Your task to perform on an android device: check data usage Image 0: 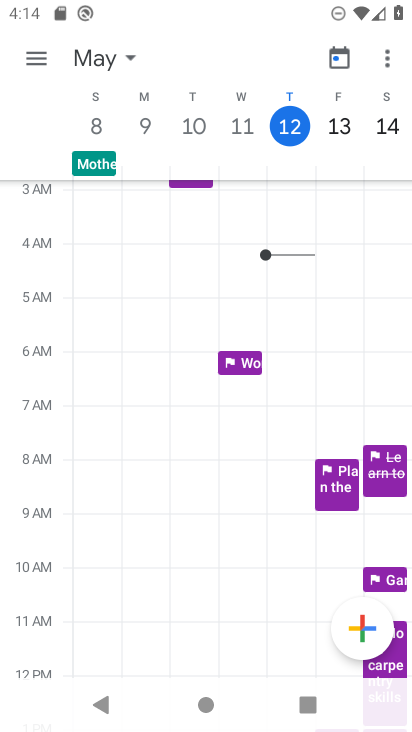
Step 0: press home button
Your task to perform on an android device: check data usage Image 1: 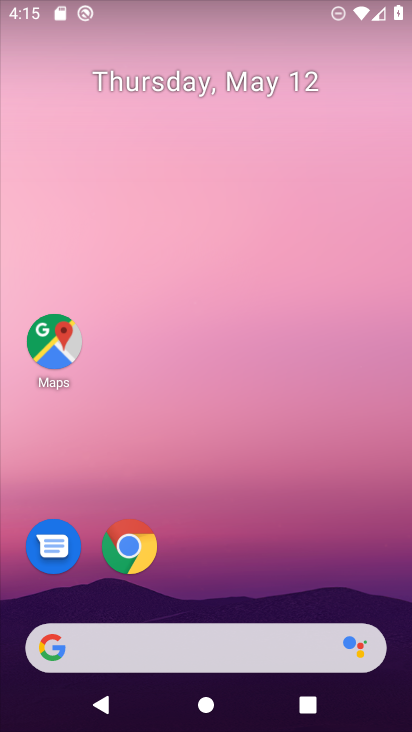
Step 1: drag from (274, 581) to (285, 213)
Your task to perform on an android device: check data usage Image 2: 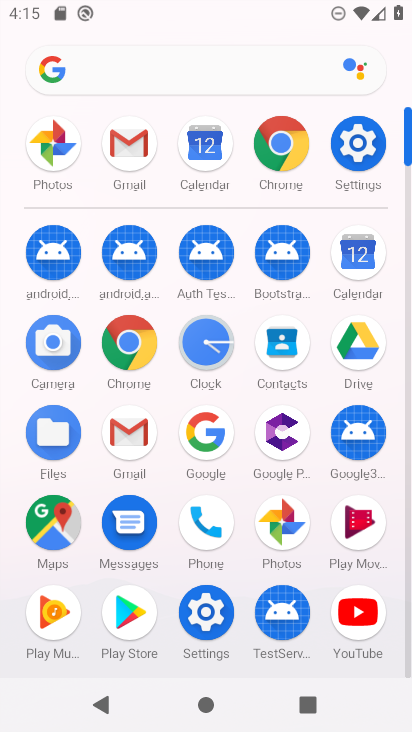
Step 2: click (345, 146)
Your task to perform on an android device: check data usage Image 3: 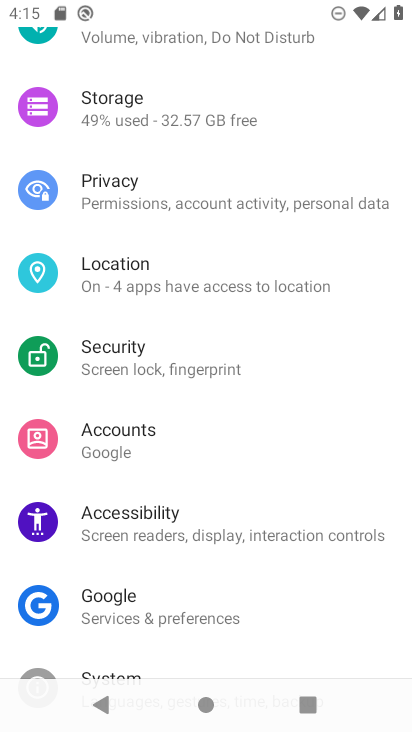
Step 3: drag from (219, 167) to (190, 648)
Your task to perform on an android device: check data usage Image 4: 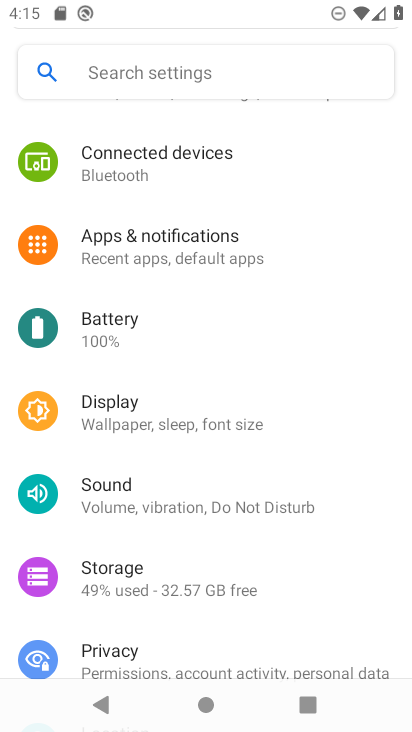
Step 4: click (163, 239)
Your task to perform on an android device: check data usage Image 5: 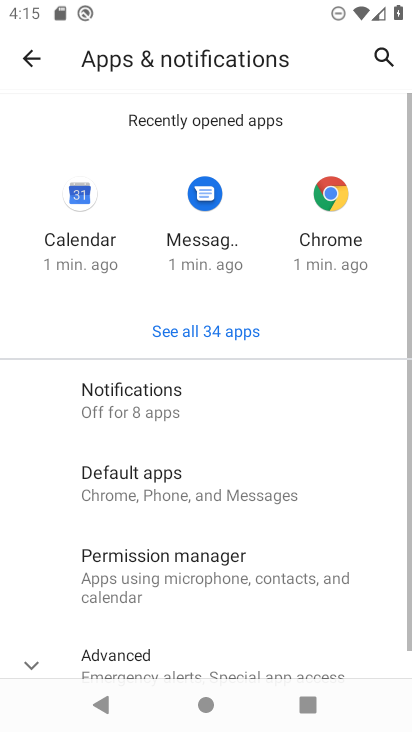
Step 5: click (25, 60)
Your task to perform on an android device: check data usage Image 6: 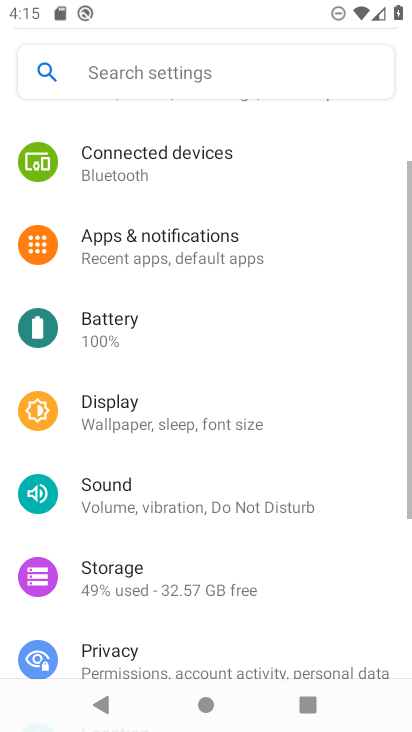
Step 6: drag from (201, 183) to (201, 626)
Your task to perform on an android device: check data usage Image 7: 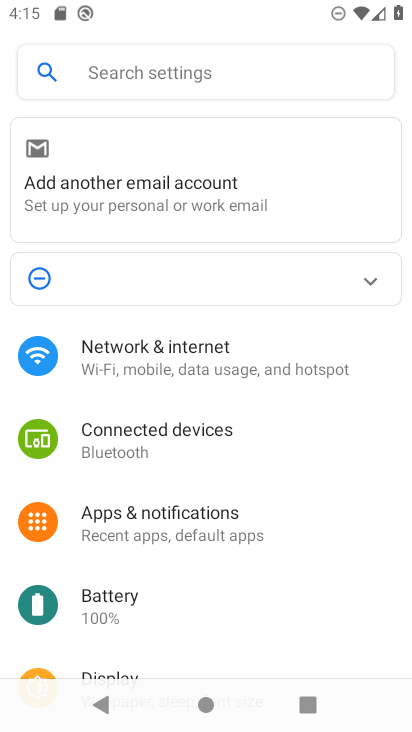
Step 7: click (181, 359)
Your task to perform on an android device: check data usage Image 8: 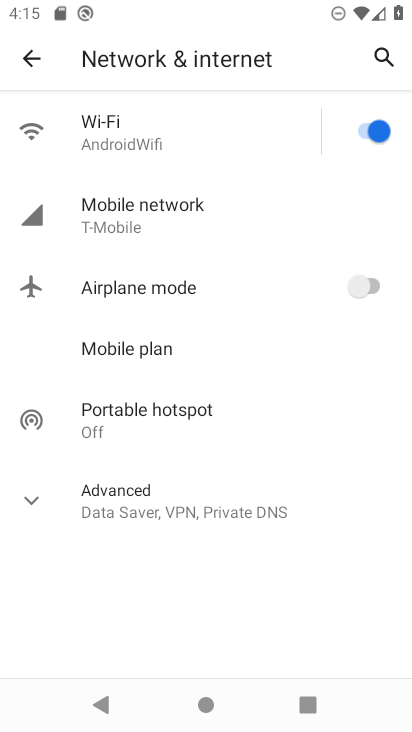
Step 8: click (152, 220)
Your task to perform on an android device: check data usage Image 9: 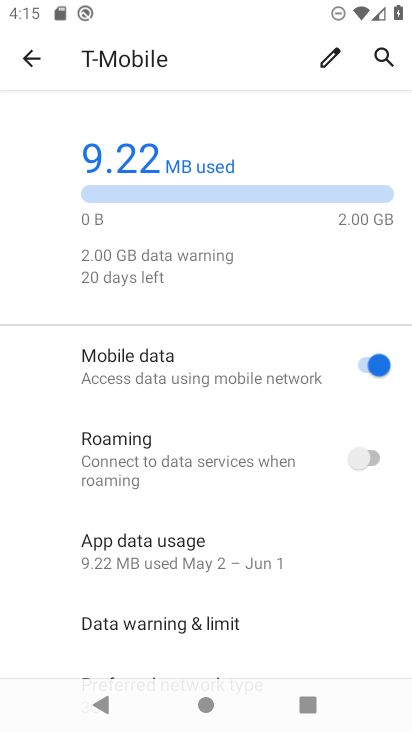
Step 9: task complete